Your task to perform on an android device: turn off priority inbox in the gmail app Image 0: 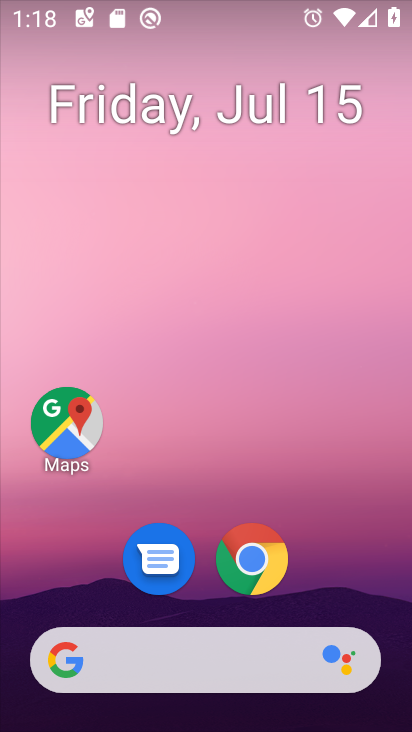
Step 0: drag from (357, 594) to (377, 87)
Your task to perform on an android device: turn off priority inbox in the gmail app Image 1: 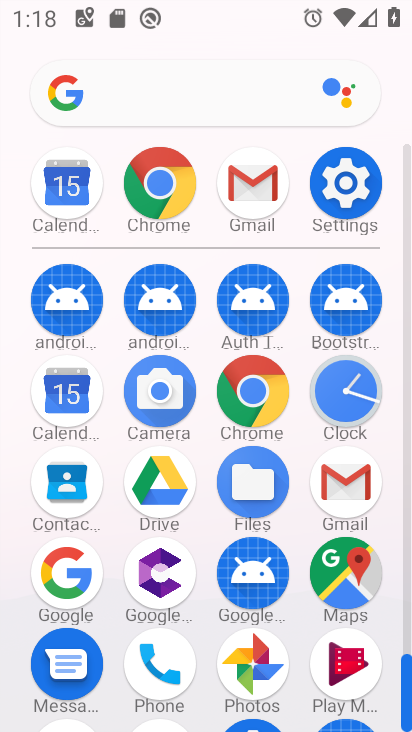
Step 1: click (261, 195)
Your task to perform on an android device: turn off priority inbox in the gmail app Image 2: 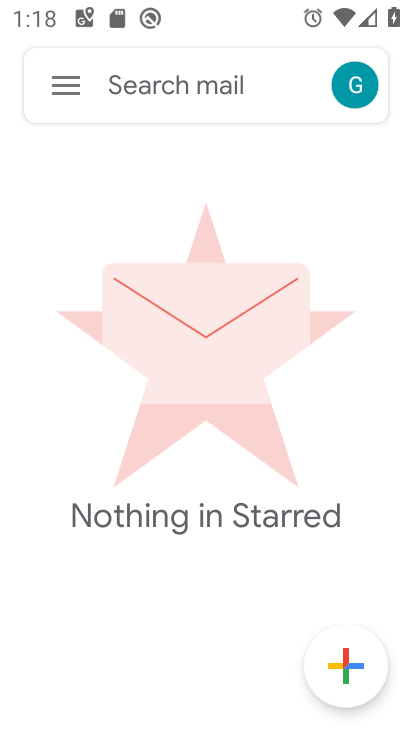
Step 2: click (58, 78)
Your task to perform on an android device: turn off priority inbox in the gmail app Image 3: 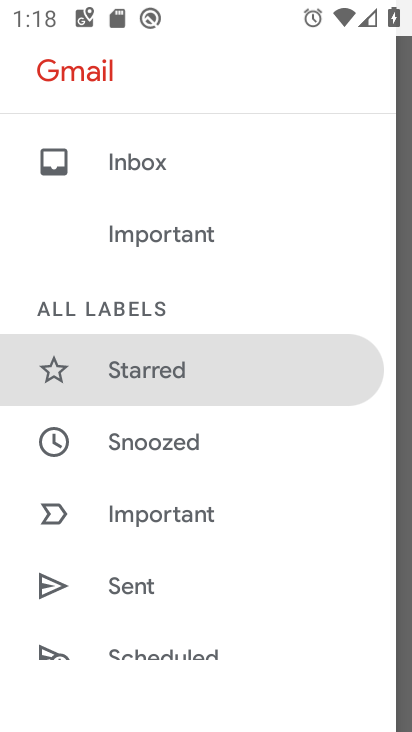
Step 3: drag from (337, 508) to (339, 445)
Your task to perform on an android device: turn off priority inbox in the gmail app Image 4: 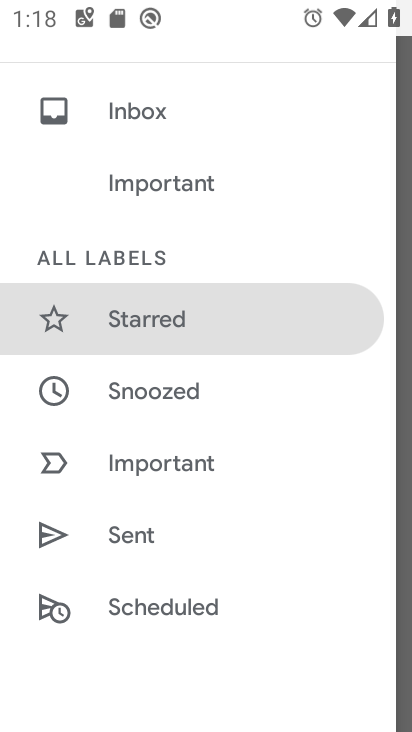
Step 4: drag from (324, 522) to (323, 437)
Your task to perform on an android device: turn off priority inbox in the gmail app Image 5: 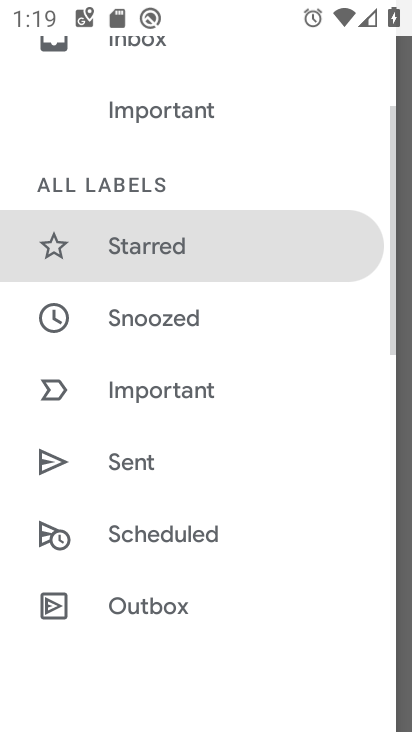
Step 5: drag from (309, 516) to (312, 408)
Your task to perform on an android device: turn off priority inbox in the gmail app Image 6: 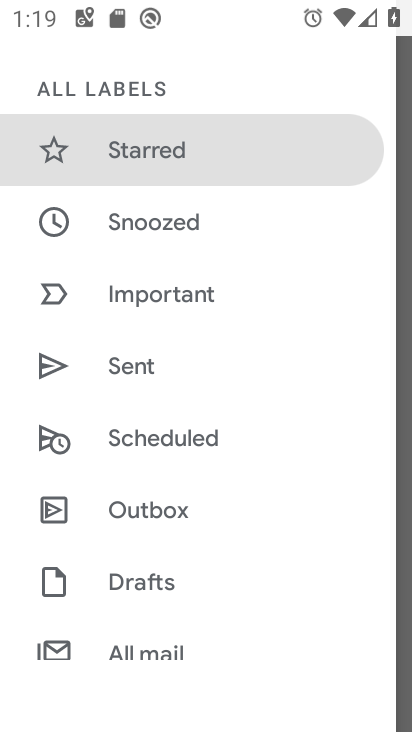
Step 6: drag from (303, 496) to (308, 405)
Your task to perform on an android device: turn off priority inbox in the gmail app Image 7: 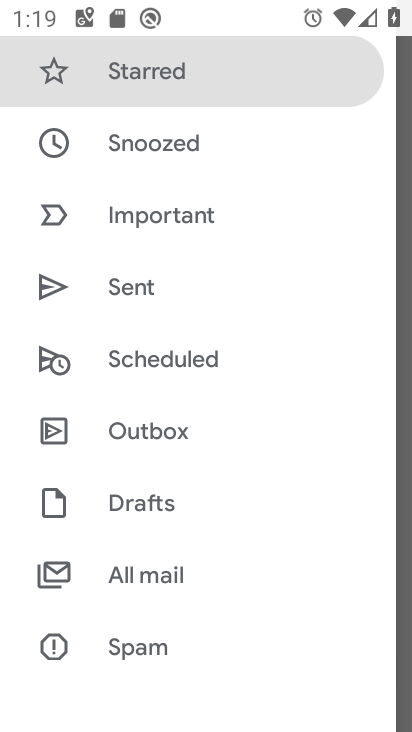
Step 7: drag from (303, 511) to (307, 473)
Your task to perform on an android device: turn off priority inbox in the gmail app Image 8: 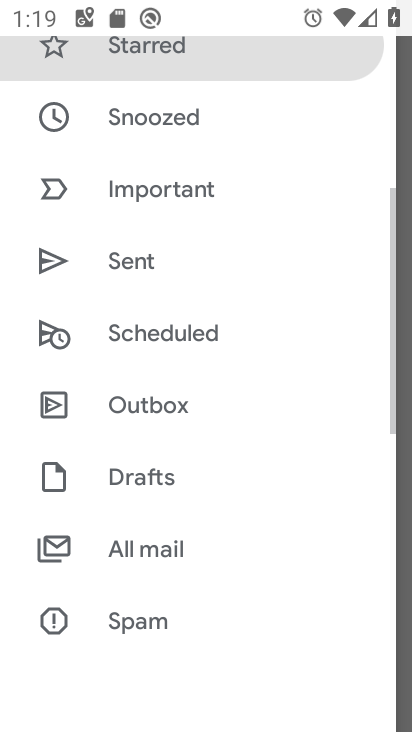
Step 8: drag from (310, 557) to (313, 473)
Your task to perform on an android device: turn off priority inbox in the gmail app Image 9: 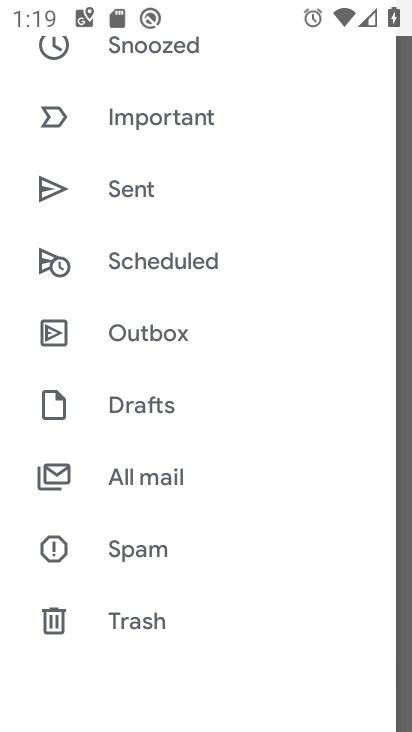
Step 9: drag from (287, 558) to (289, 429)
Your task to perform on an android device: turn off priority inbox in the gmail app Image 10: 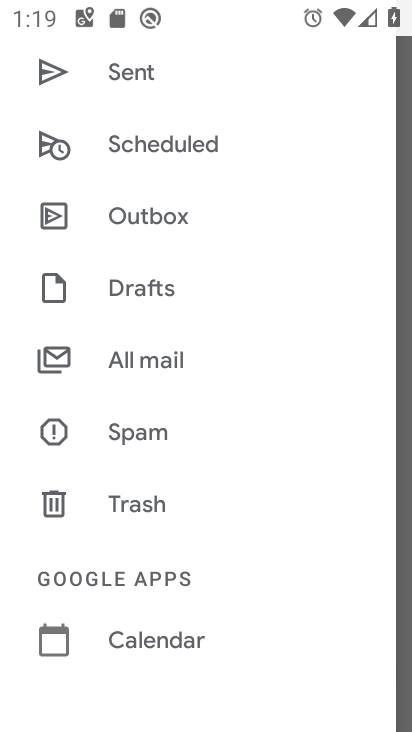
Step 10: drag from (290, 533) to (288, 387)
Your task to perform on an android device: turn off priority inbox in the gmail app Image 11: 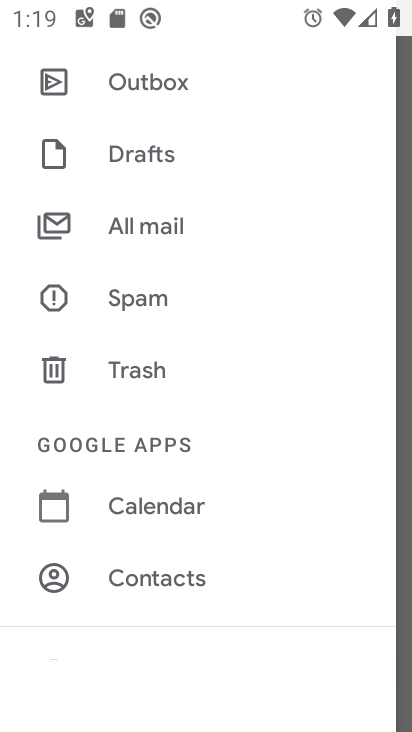
Step 11: drag from (291, 565) to (291, 442)
Your task to perform on an android device: turn off priority inbox in the gmail app Image 12: 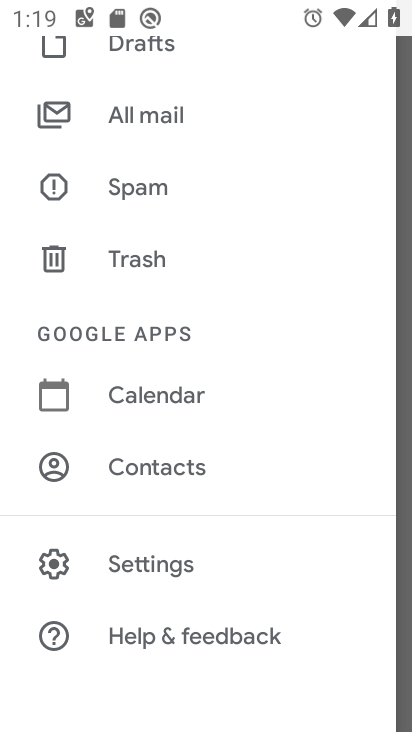
Step 12: click (284, 582)
Your task to perform on an android device: turn off priority inbox in the gmail app Image 13: 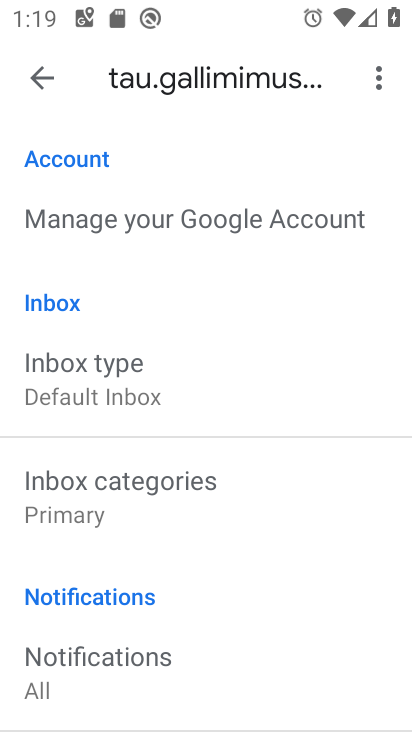
Step 13: task complete